Your task to perform on an android device: open a bookmark in the chrome app Image 0: 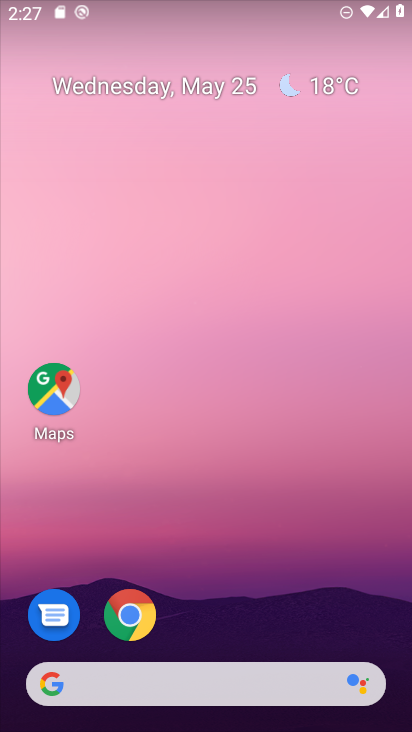
Step 0: click (142, 611)
Your task to perform on an android device: open a bookmark in the chrome app Image 1: 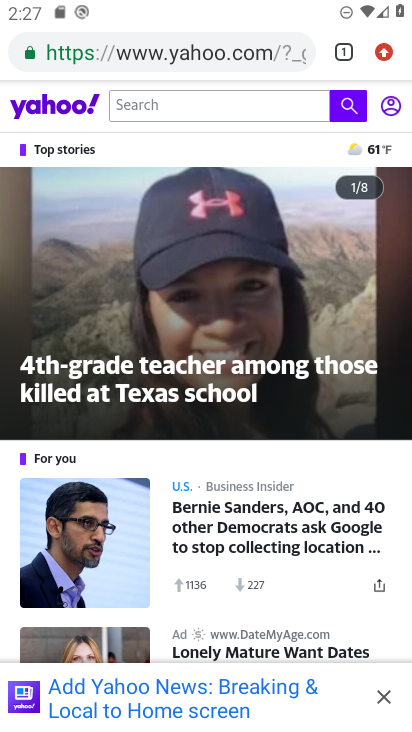
Step 1: click (381, 49)
Your task to perform on an android device: open a bookmark in the chrome app Image 2: 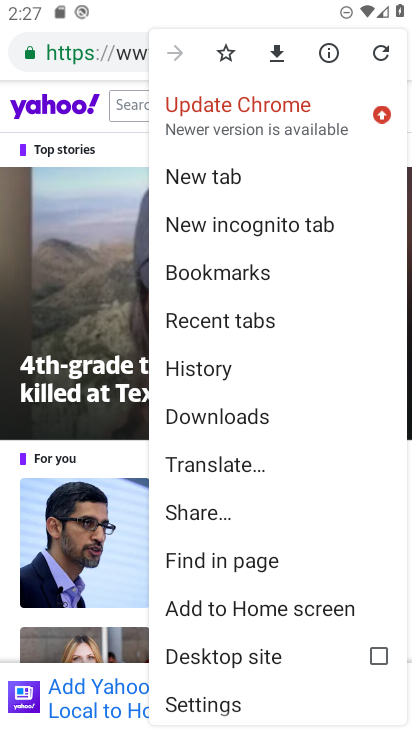
Step 2: click (265, 270)
Your task to perform on an android device: open a bookmark in the chrome app Image 3: 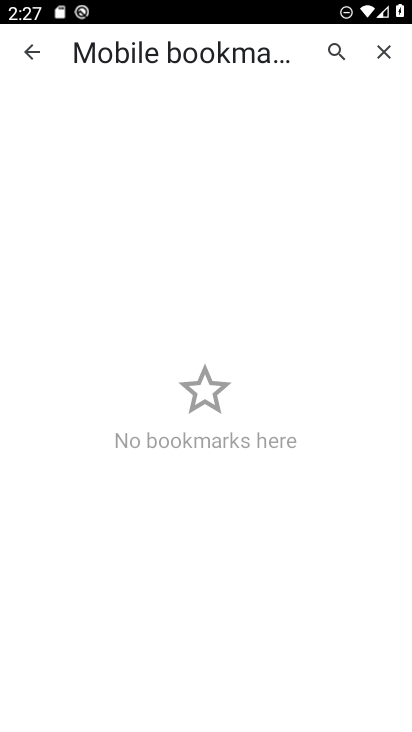
Step 3: task complete